Your task to perform on an android device: toggle data saver in the chrome app Image 0: 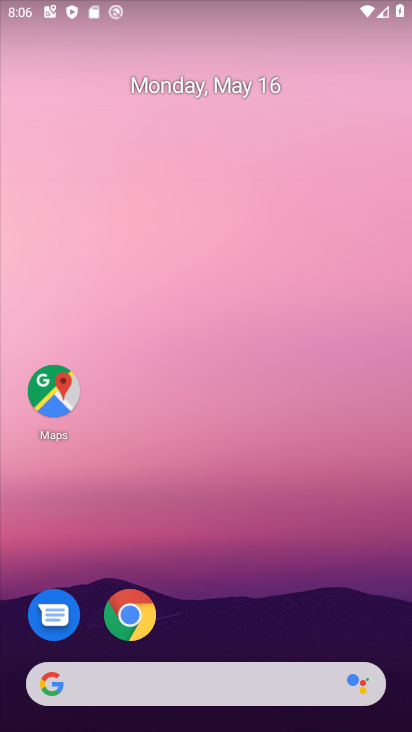
Step 0: click (122, 610)
Your task to perform on an android device: toggle data saver in the chrome app Image 1: 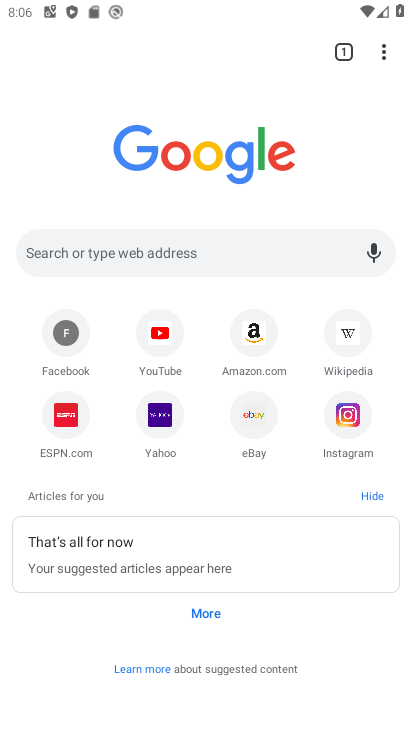
Step 1: click (379, 55)
Your task to perform on an android device: toggle data saver in the chrome app Image 2: 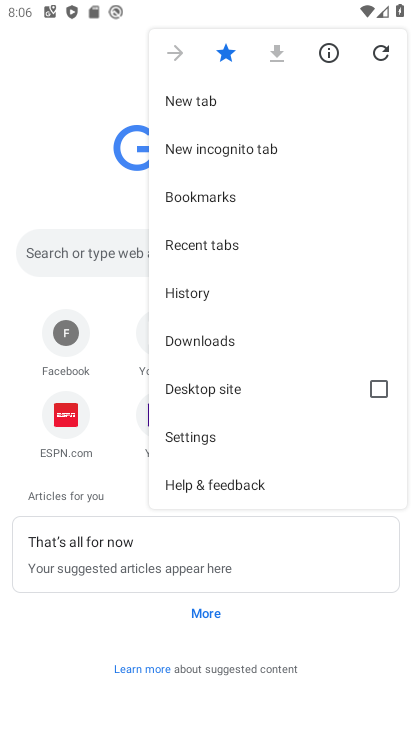
Step 2: click (276, 448)
Your task to perform on an android device: toggle data saver in the chrome app Image 3: 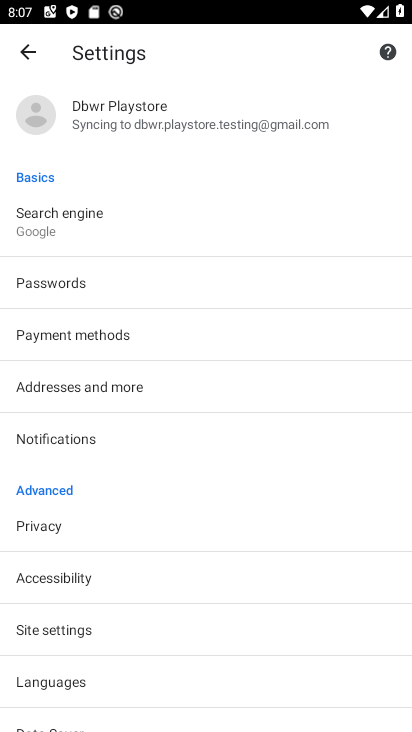
Step 3: drag from (103, 648) to (141, 214)
Your task to perform on an android device: toggle data saver in the chrome app Image 4: 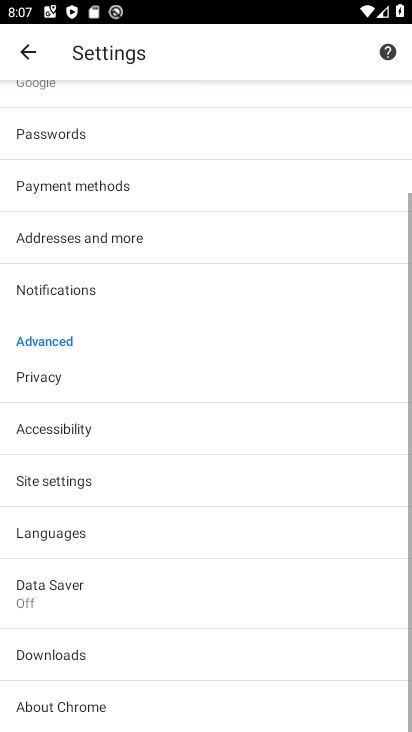
Step 4: click (83, 592)
Your task to perform on an android device: toggle data saver in the chrome app Image 5: 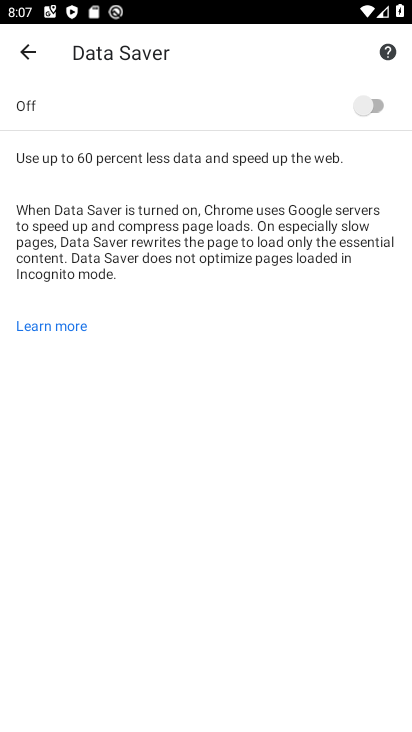
Step 5: click (394, 102)
Your task to perform on an android device: toggle data saver in the chrome app Image 6: 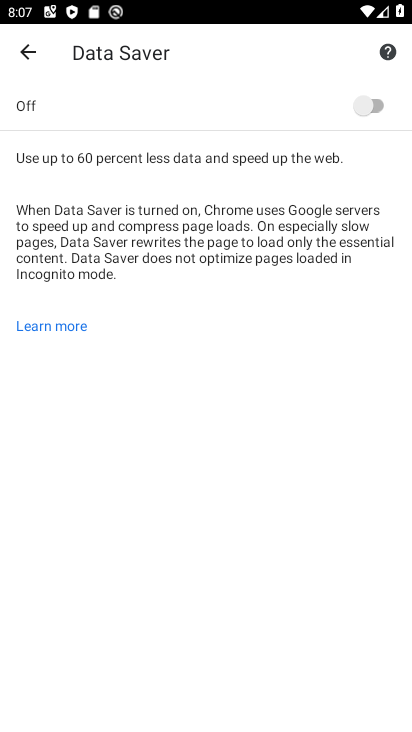
Step 6: click (394, 102)
Your task to perform on an android device: toggle data saver in the chrome app Image 7: 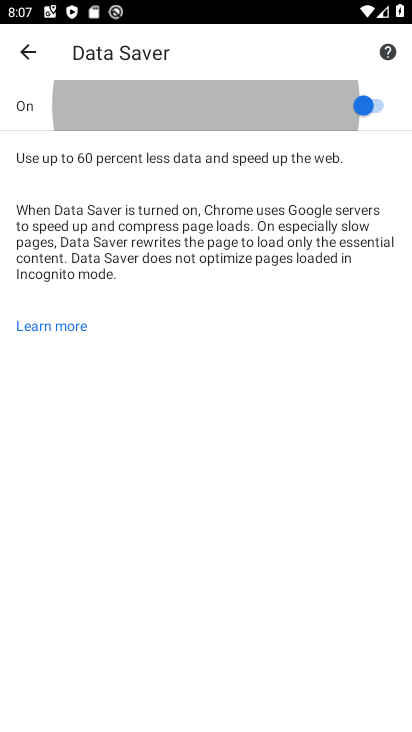
Step 7: click (394, 102)
Your task to perform on an android device: toggle data saver in the chrome app Image 8: 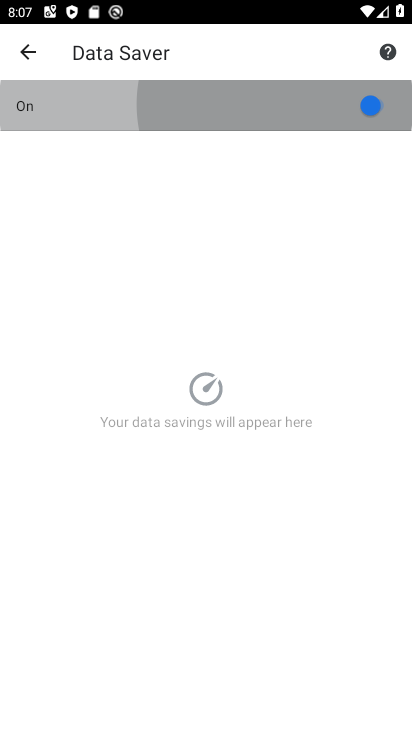
Step 8: click (394, 102)
Your task to perform on an android device: toggle data saver in the chrome app Image 9: 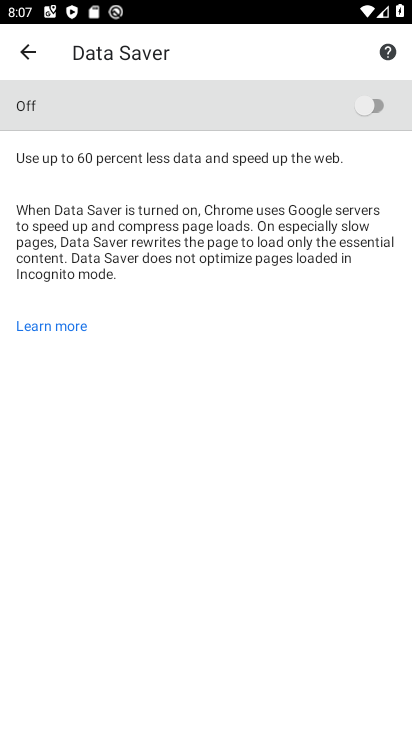
Step 9: click (394, 102)
Your task to perform on an android device: toggle data saver in the chrome app Image 10: 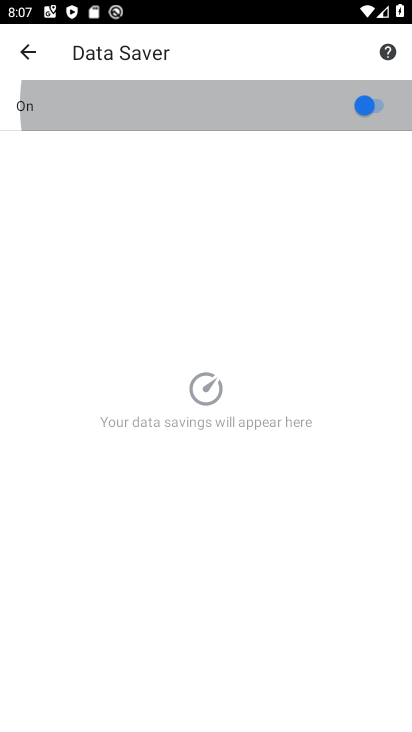
Step 10: click (394, 102)
Your task to perform on an android device: toggle data saver in the chrome app Image 11: 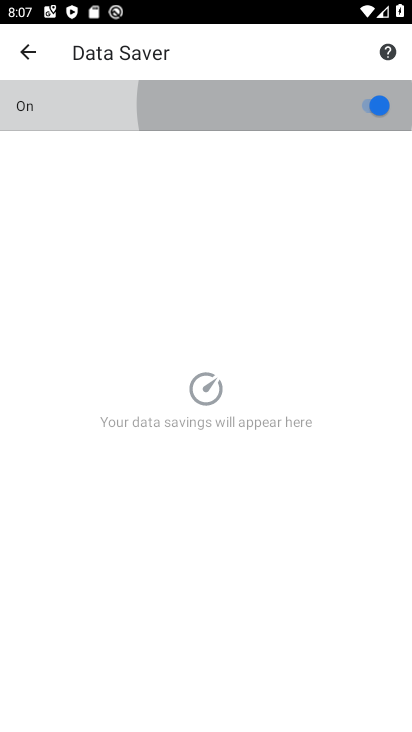
Step 11: click (394, 102)
Your task to perform on an android device: toggle data saver in the chrome app Image 12: 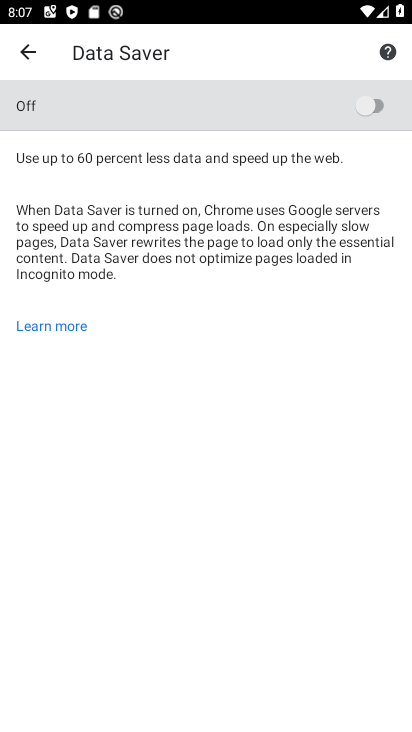
Step 12: click (394, 102)
Your task to perform on an android device: toggle data saver in the chrome app Image 13: 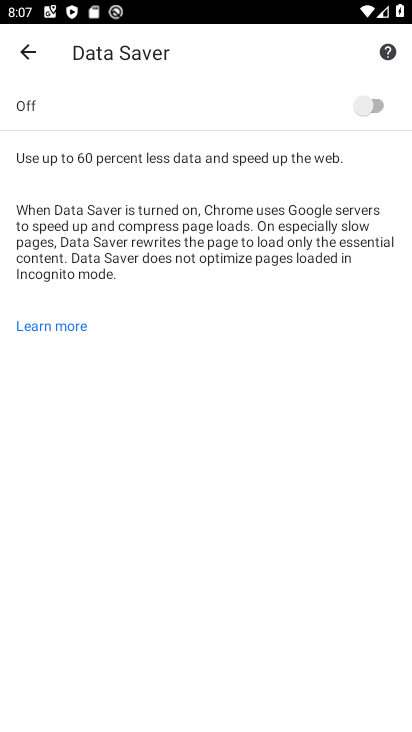
Step 13: task complete